Your task to perform on an android device: turn on wifi Image 0: 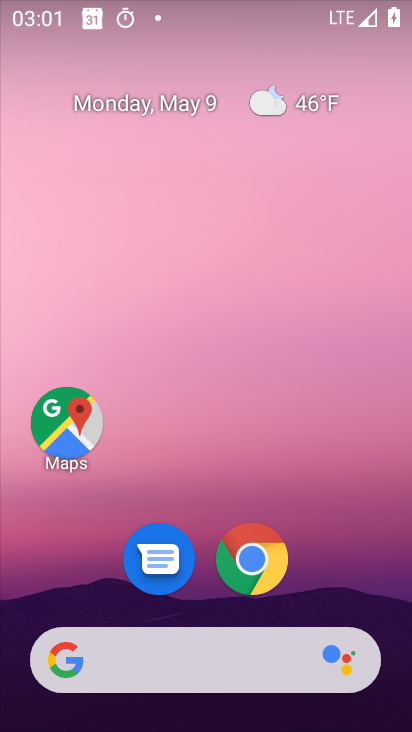
Step 0: drag from (335, 553) to (258, 76)
Your task to perform on an android device: turn on wifi Image 1: 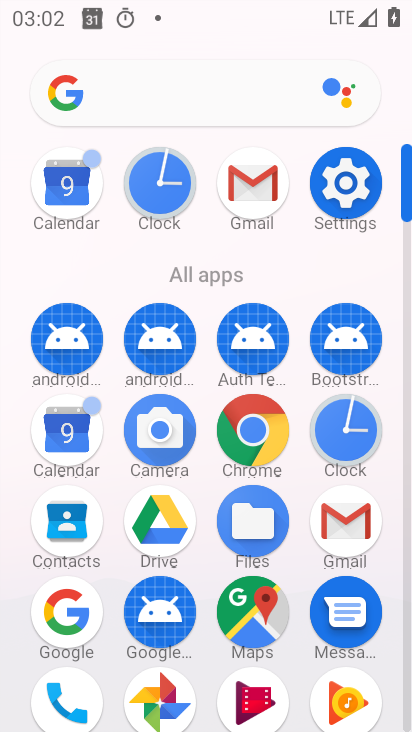
Step 1: click (349, 183)
Your task to perform on an android device: turn on wifi Image 2: 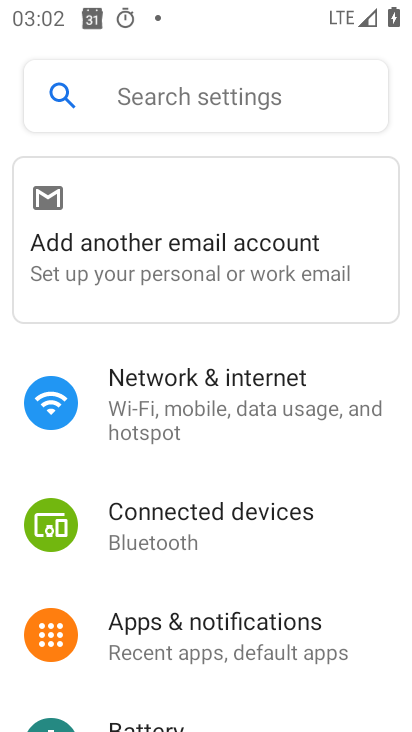
Step 2: click (228, 375)
Your task to perform on an android device: turn on wifi Image 3: 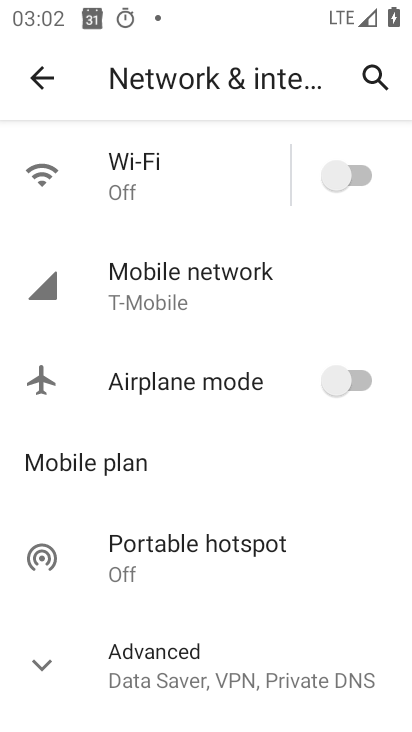
Step 3: click (356, 171)
Your task to perform on an android device: turn on wifi Image 4: 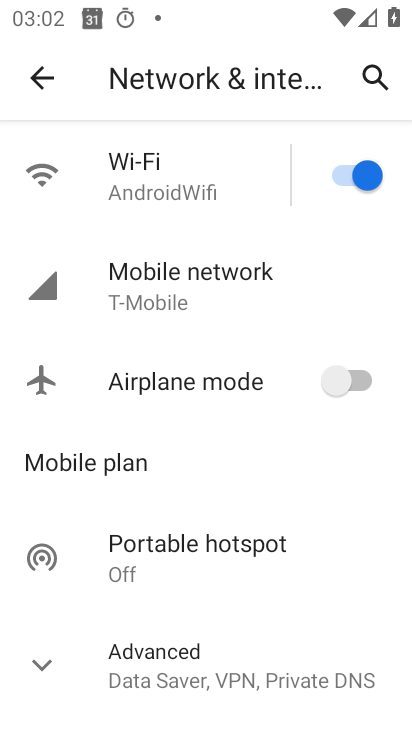
Step 4: task complete